Your task to perform on an android device: What's the weather going to be this weekend? Image 0: 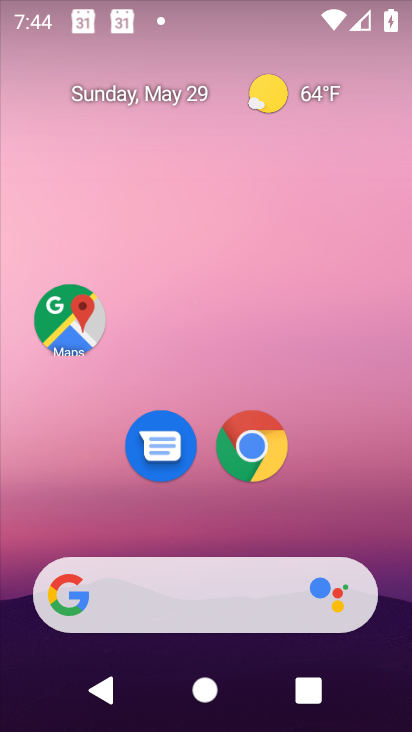
Step 0: drag from (213, 462) to (214, 143)
Your task to perform on an android device: What's the weather going to be this weekend? Image 1: 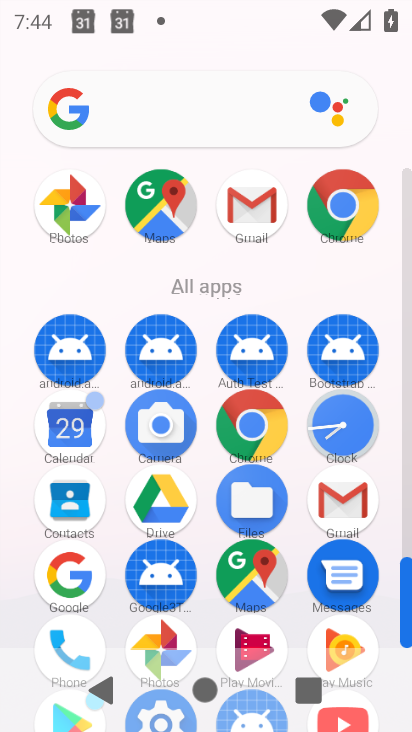
Step 1: drag from (211, 620) to (227, 325)
Your task to perform on an android device: What's the weather going to be this weekend? Image 2: 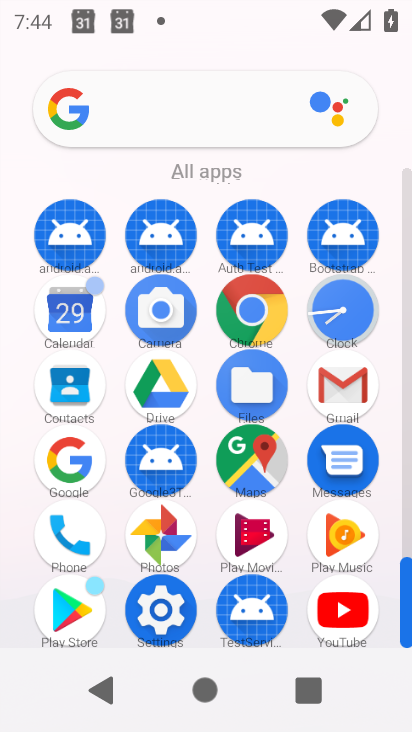
Step 2: drag from (208, 587) to (189, 191)
Your task to perform on an android device: What's the weather going to be this weekend? Image 3: 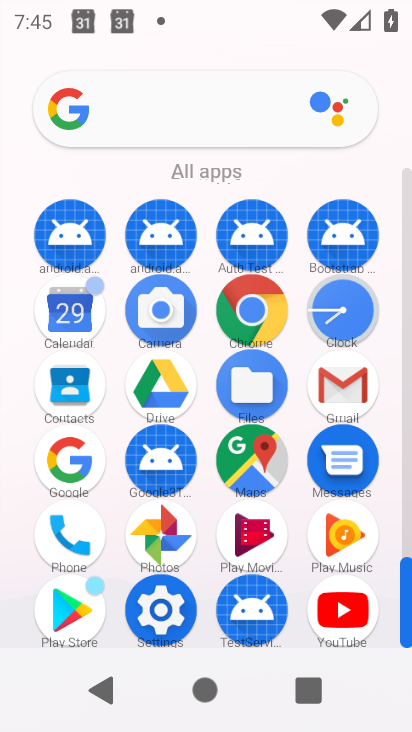
Step 3: click (161, 113)
Your task to perform on an android device: What's the weather going to be this weekend? Image 4: 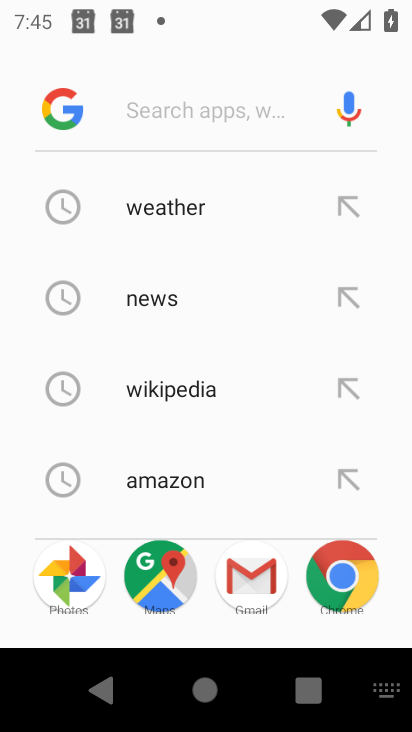
Step 4: type "What's the weather going to be this weekend?"
Your task to perform on an android device: What's the weather going to be this weekend? Image 5: 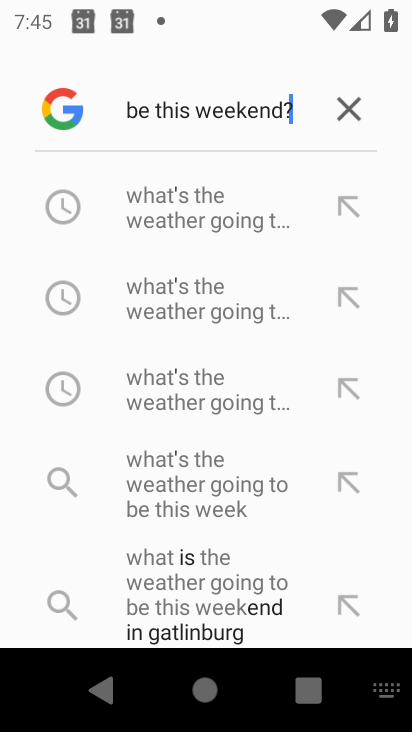
Step 5: type ""
Your task to perform on an android device: What's the weather going to be this weekend? Image 6: 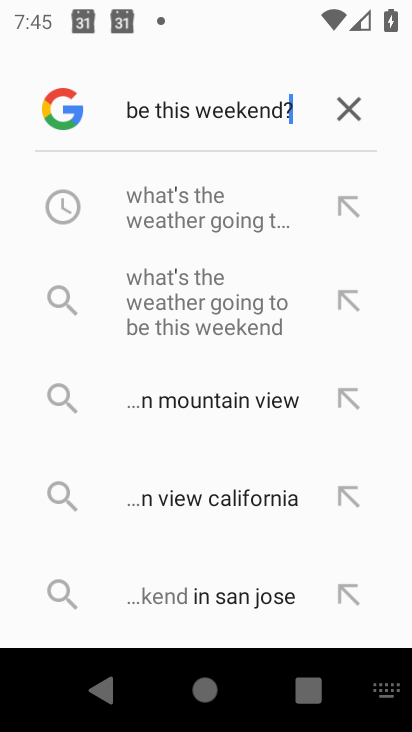
Step 6: click (210, 196)
Your task to perform on an android device: What's the weather going to be this weekend? Image 7: 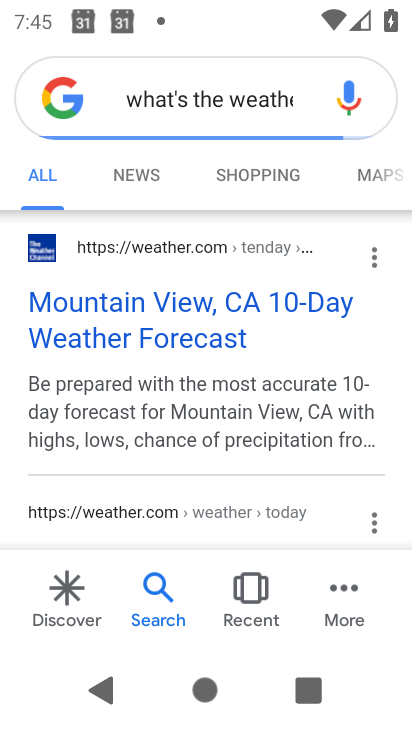
Step 7: task complete